Your task to perform on an android device: turn on translation in the chrome app Image 0: 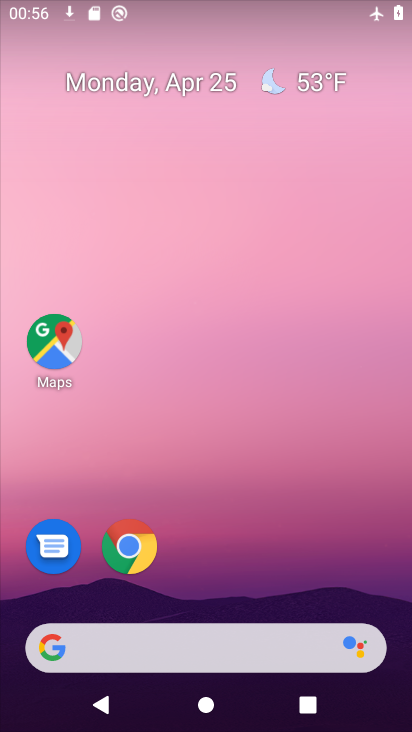
Step 0: click (126, 544)
Your task to perform on an android device: turn on translation in the chrome app Image 1: 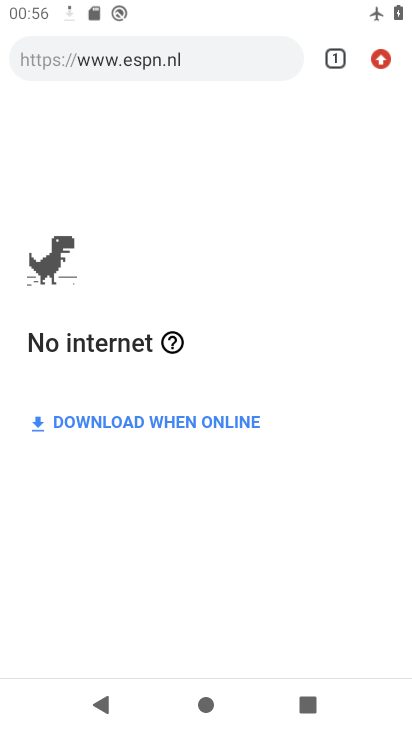
Step 1: drag from (377, 69) to (172, 566)
Your task to perform on an android device: turn on translation in the chrome app Image 2: 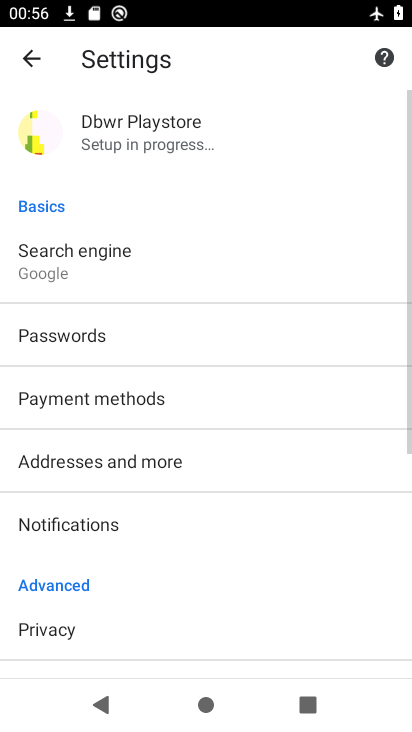
Step 2: drag from (172, 566) to (176, 178)
Your task to perform on an android device: turn on translation in the chrome app Image 3: 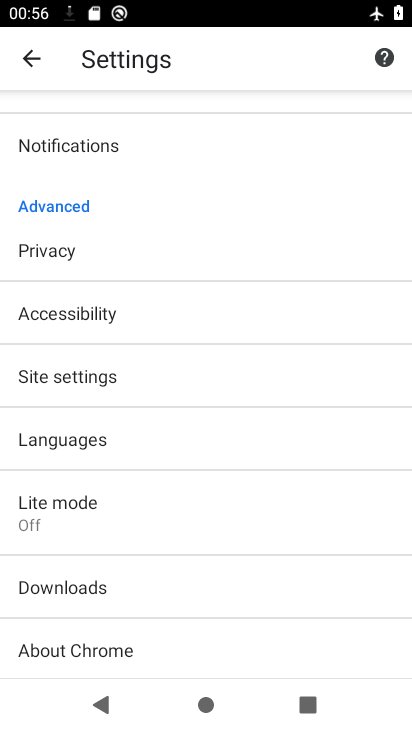
Step 3: click (124, 440)
Your task to perform on an android device: turn on translation in the chrome app Image 4: 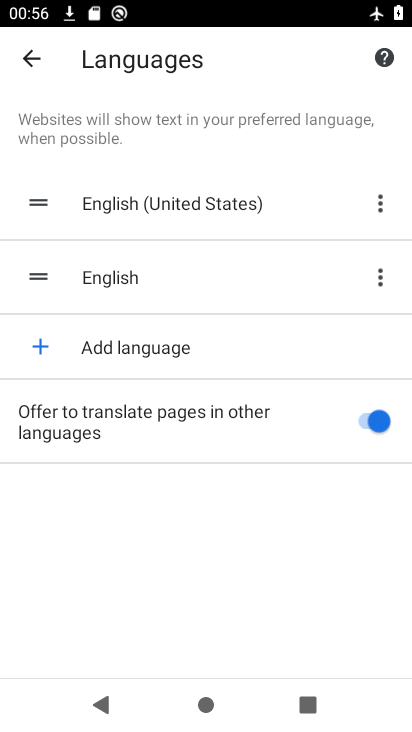
Step 4: task complete